Your task to perform on an android device: toggle notifications settings in the gmail app Image 0: 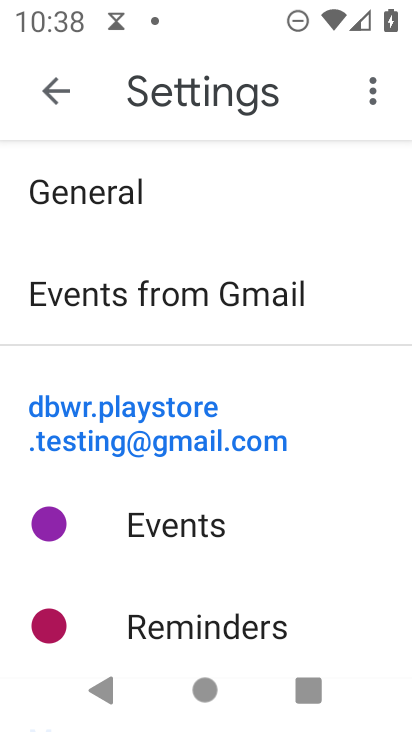
Step 0: press home button
Your task to perform on an android device: toggle notifications settings in the gmail app Image 1: 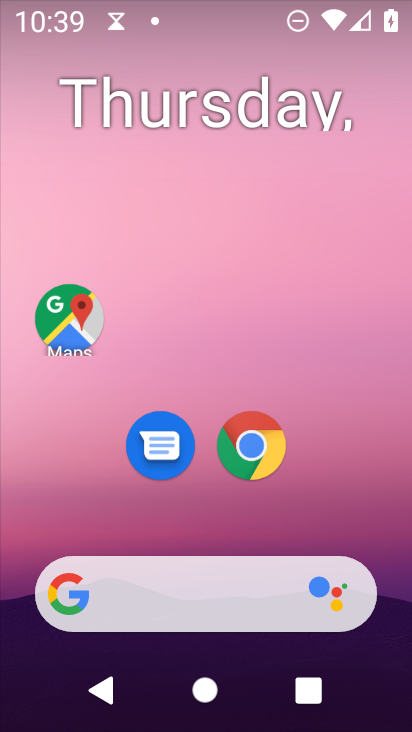
Step 1: drag from (241, 722) to (248, 55)
Your task to perform on an android device: toggle notifications settings in the gmail app Image 2: 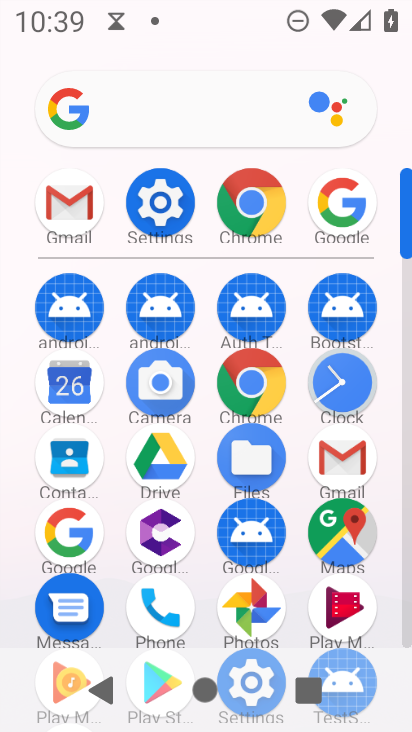
Step 2: click (359, 452)
Your task to perform on an android device: toggle notifications settings in the gmail app Image 3: 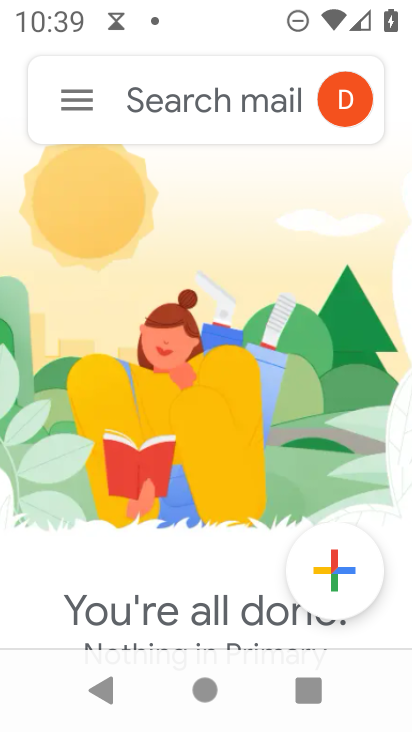
Step 3: click (77, 96)
Your task to perform on an android device: toggle notifications settings in the gmail app Image 4: 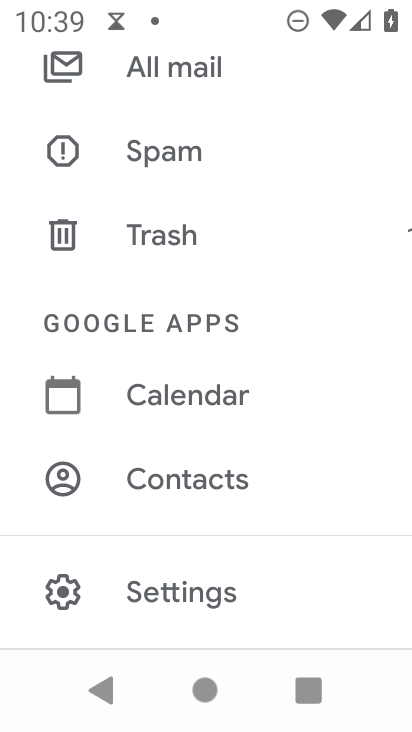
Step 4: click (190, 585)
Your task to perform on an android device: toggle notifications settings in the gmail app Image 5: 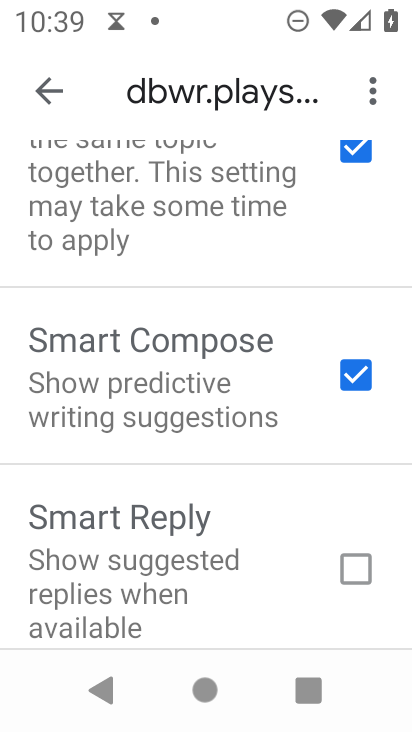
Step 5: drag from (206, 607) to (211, 100)
Your task to perform on an android device: toggle notifications settings in the gmail app Image 6: 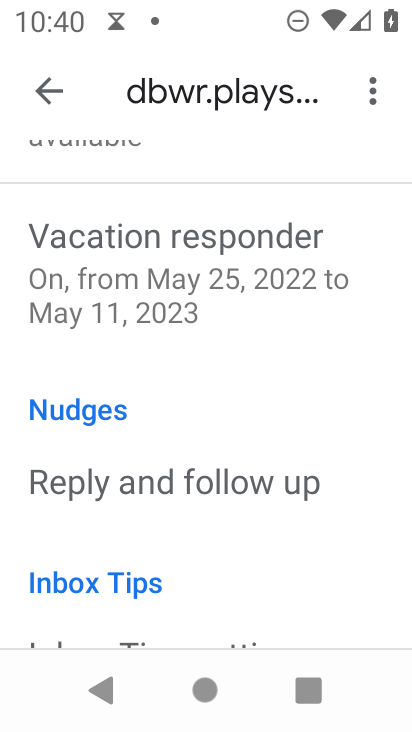
Step 6: drag from (240, 175) to (234, 642)
Your task to perform on an android device: toggle notifications settings in the gmail app Image 7: 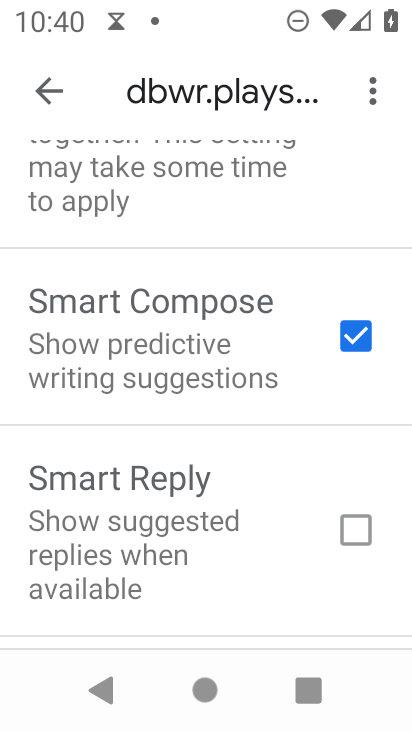
Step 7: drag from (228, 160) to (234, 577)
Your task to perform on an android device: toggle notifications settings in the gmail app Image 8: 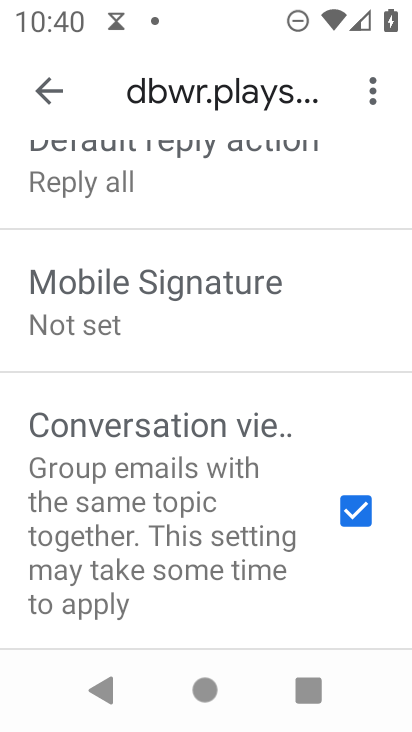
Step 8: drag from (237, 164) to (229, 580)
Your task to perform on an android device: toggle notifications settings in the gmail app Image 9: 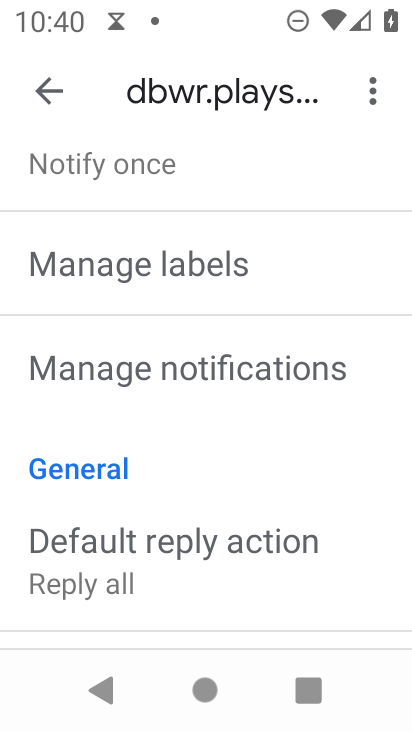
Step 9: drag from (234, 199) to (224, 571)
Your task to perform on an android device: toggle notifications settings in the gmail app Image 10: 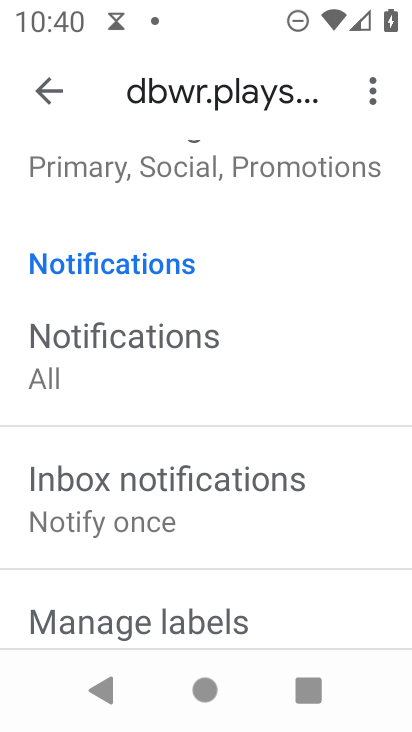
Step 10: click (109, 340)
Your task to perform on an android device: toggle notifications settings in the gmail app Image 11: 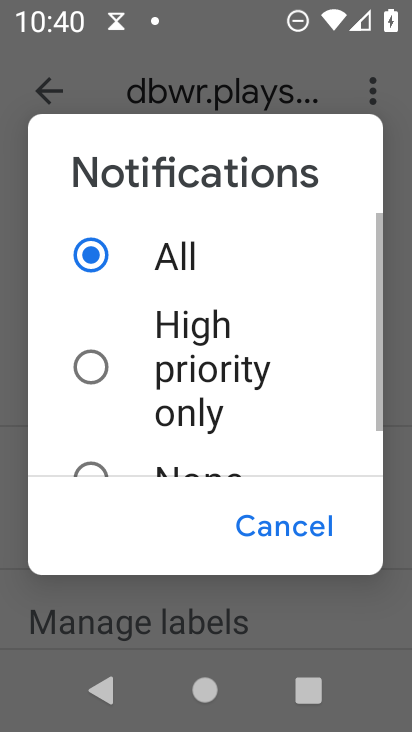
Step 11: click (97, 366)
Your task to perform on an android device: toggle notifications settings in the gmail app Image 12: 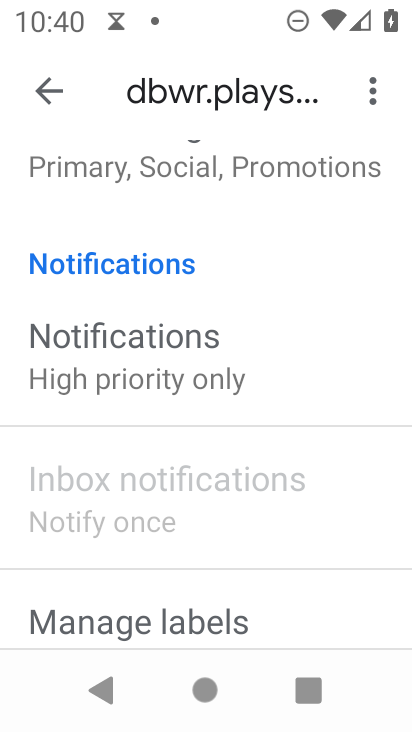
Step 12: task complete